Your task to perform on an android device: Play the last video I watched on Youtube Image 0: 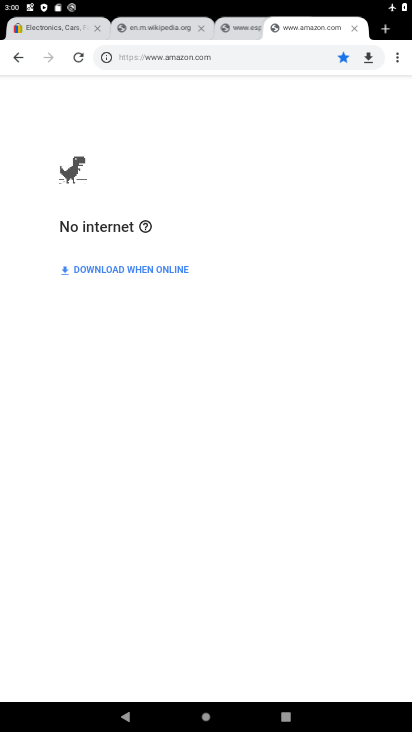
Step 0: press home button
Your task to perform on an android device: Play the last video I watched on Youtube Image 1: 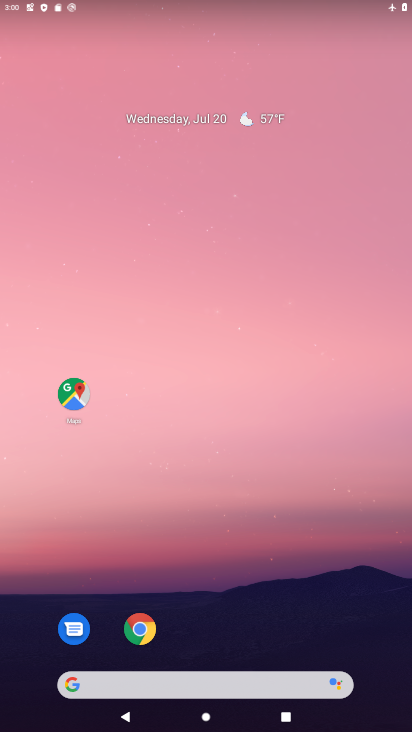
Step 1: drag from (214, 593) to (217, 109)
Your task to perform on an android device: Play the last video I watched on Youtube Image 2: 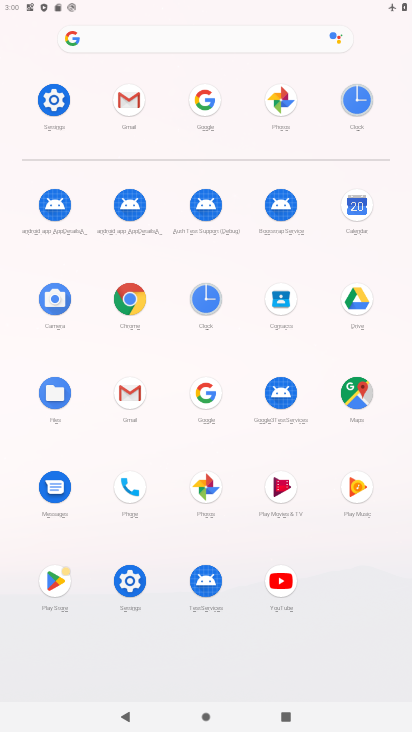
Step 2: click (283, 598)
Your task to perform on an android device: Play the last video I watched on Youtube Image 3: 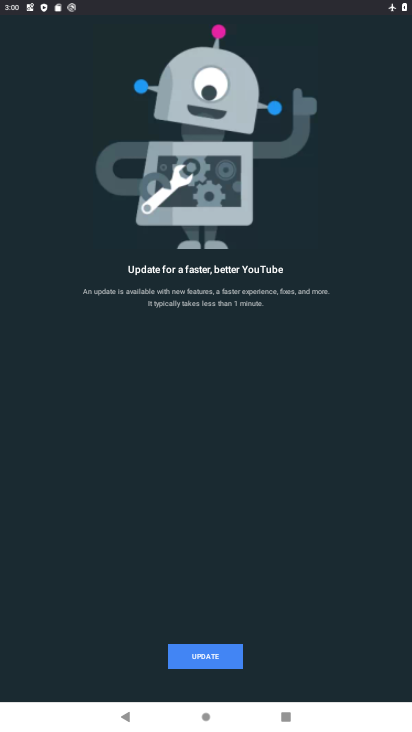
Step 3: click (193, 649)
Your task to perform on an android device: Play the last video I watched on Youtube Image 4: 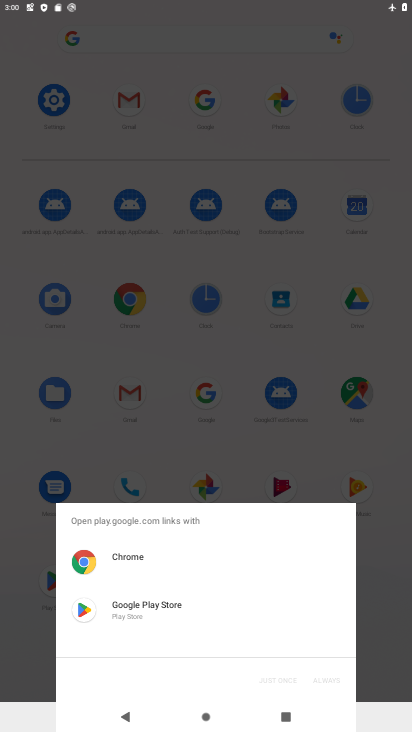
Step 4: click (150, 614)
Your task to perform on an android device: Play the last video I watched on Youtube Image 5: 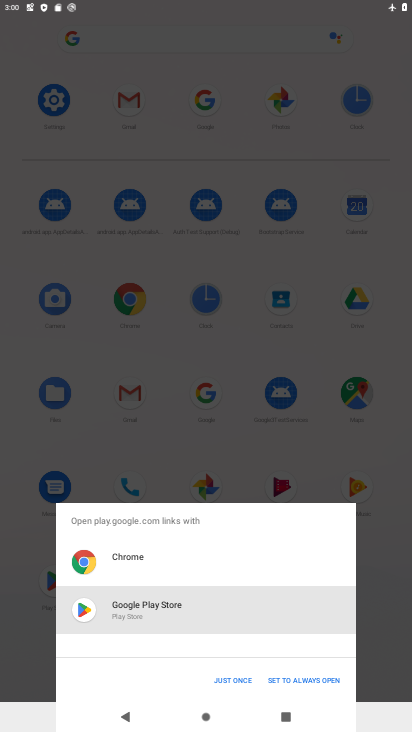
Step 5: click (229, 681)
Your task to perform on an android device: Play the last video I watched on Youtube Image 6: 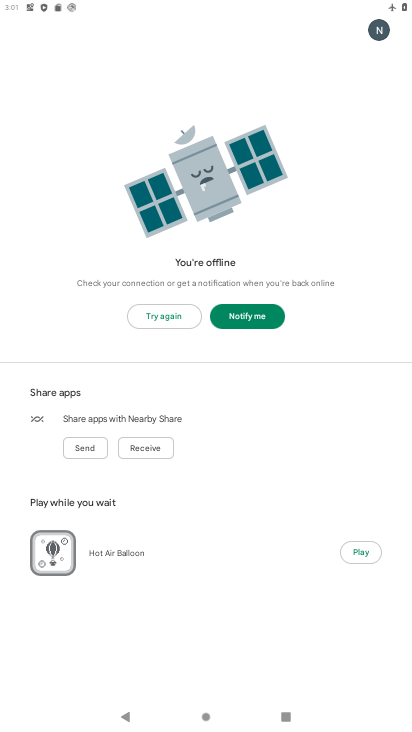
Step 6: task complete